Your task to perform on an android device: Open ESPN.com Image 0: 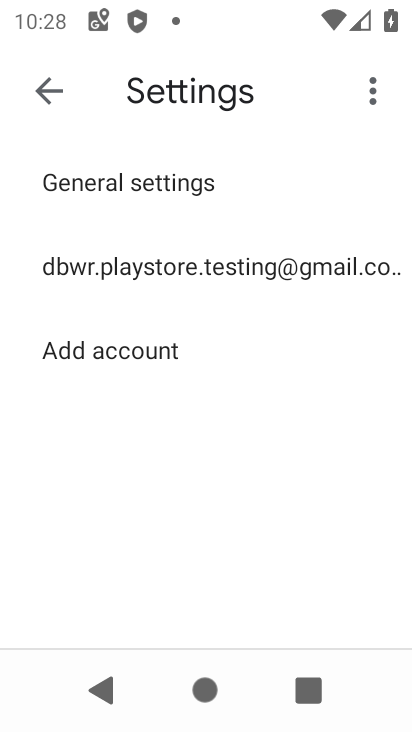
Step 0: press home button
Your task to perform on an android device: Open ESPN.com Image 1: 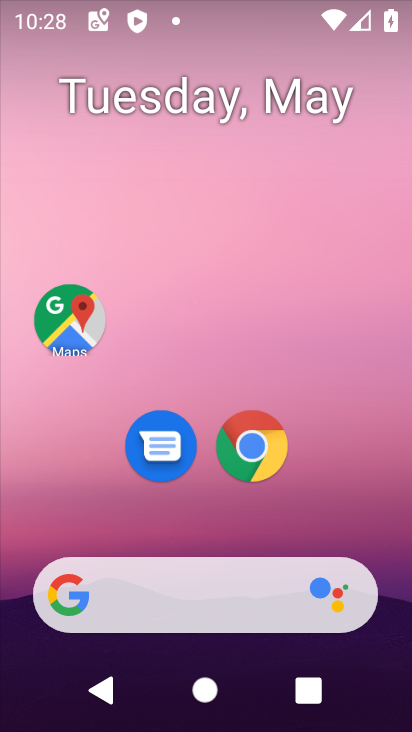
Step 1: click (247, 464)
Your task to perform on an android device: Open ESPN.com Image 2: 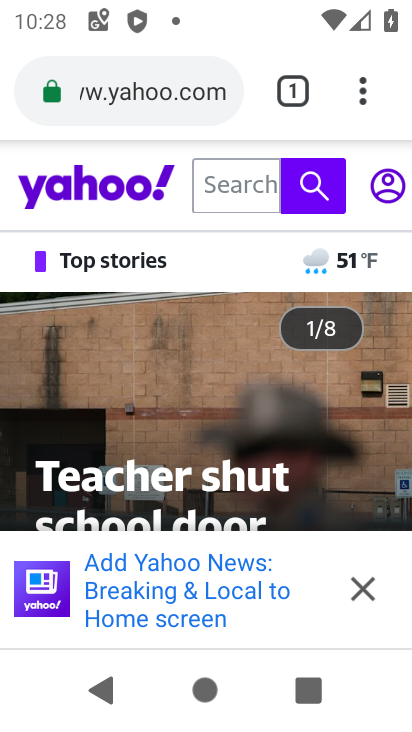
Step 2: click (121, 86)
Your task to perform on an android device: Open ESPN.com Image 3: 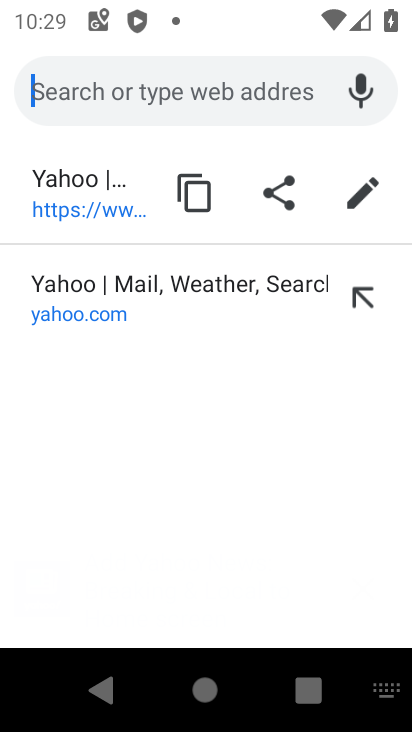
Step 3: type "ESPN.com"
Your task to perform on an android device: Open ESPN.com Image 4: 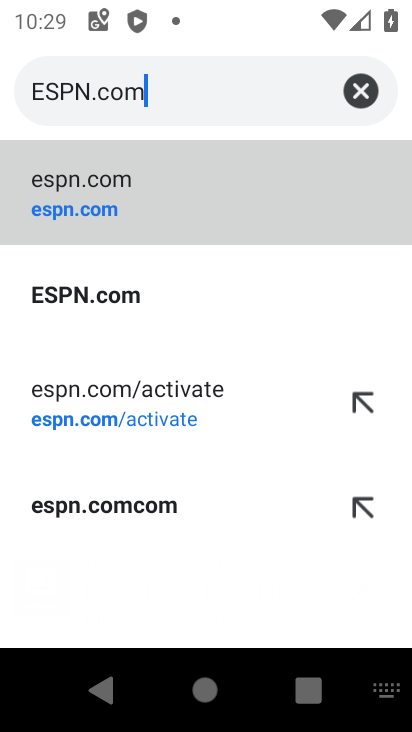
Step 4: click (103, 294)
Your task to perform on an android device: Open ESPN.com Image 5: 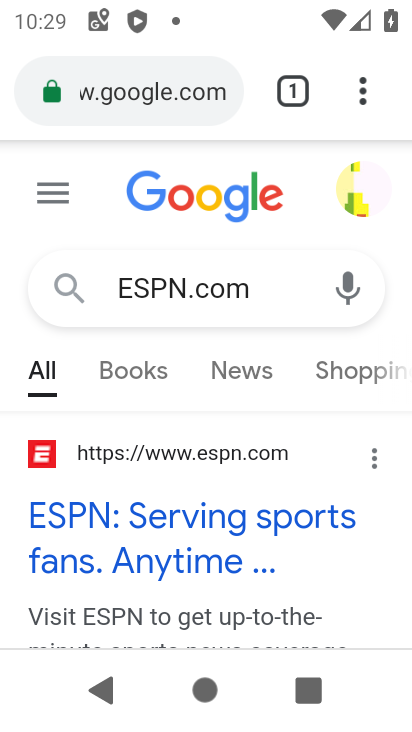
Step 5: task complete